Your task to perform on an android device: Add "razer blackwidow" to the cart on ebay.com Image 0: 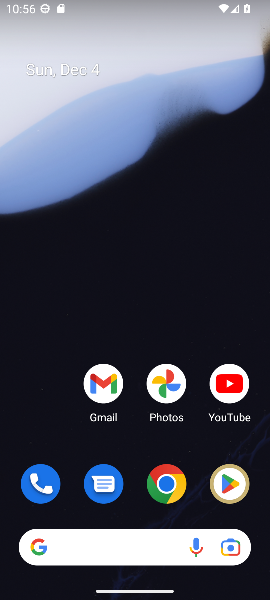
Step 0: click (171, 481)
Your task to perform on an android device: Add "razer blackwidow" to the cart on ebay.com Image 1: 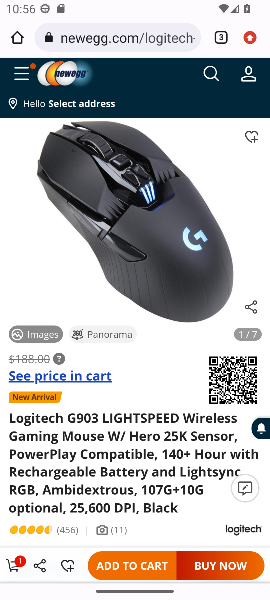
Step 1: click (86, 39)
Your task to perform on an android device: Add "razer blackwidow" to the cart on ebay.com Image 2: 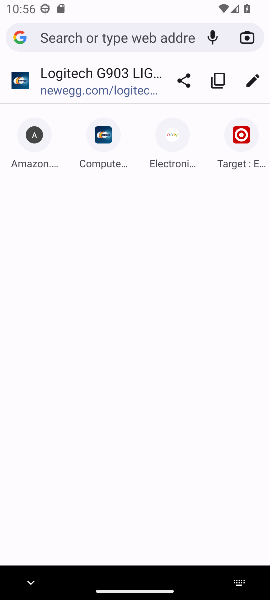
Step 2: type "ebay.com"
Your task to perform on an android device: Add "razer blackwidow" to the cart on ebay.com Image 3: 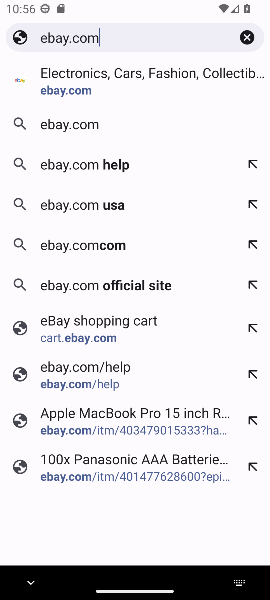
Step 3: click (60, 98)
Your task to perform on an android device: Add "razer blackwidow" to the cart on ebay.com Image 4: 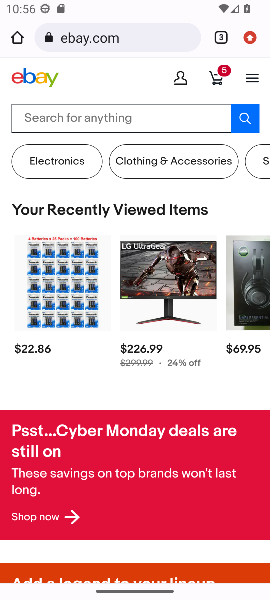
Step 4: click (104, 116)
Your task to perform on an android device: Add "razer blackwidow" to the cart on ebay.com Image 5: 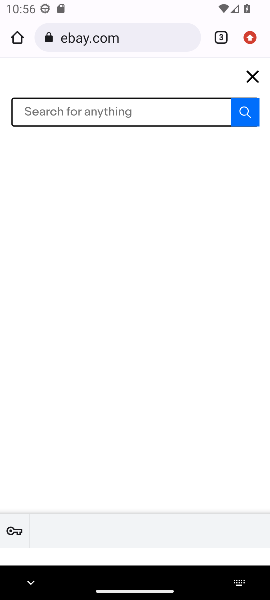
Step 5: click (118, 102)
Your task to perform on an android device: Add "razer blackwidow" to the cart on ebay.com Image 6: 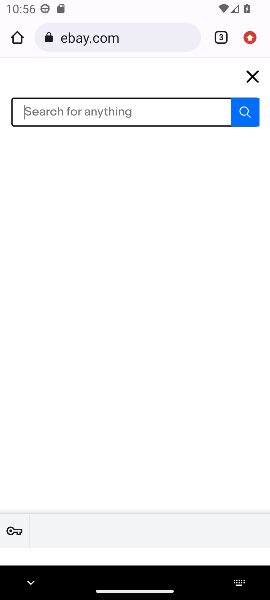
Step 6: type "razer blackwidow"
Your task to perform on an android device: Add "razer blackwidow" to the cart on ebay.com Image 7: 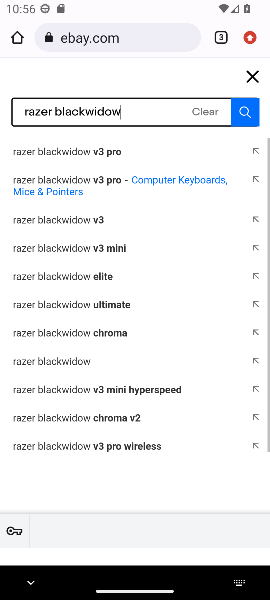
Step 7: click (69, 363)
Your task to perform on an android device: Add "razer blackwidow" to the cart on ebay.com Image 8: 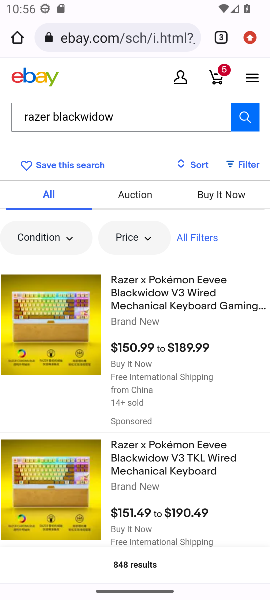
Step 8: drag from (91, 418) to (86, 272)
Your task to perform on an android device: Add "razer blackwidow" to the cart on ebay.com Image 9: 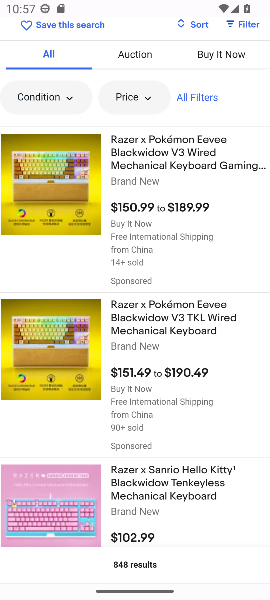
Step 9: drag from (123, 458) to (113, 211)
Your task to perform on an android device: Add "razer blackwidow" to the cart on ebay.com Image 10: 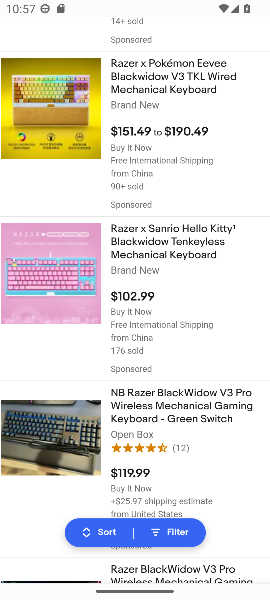
Step 10: drag from (88, 414) to (84, 218)
Your task to perform on an android device: Add "razer blackwidow" to the cart on ebay.com Image 11: 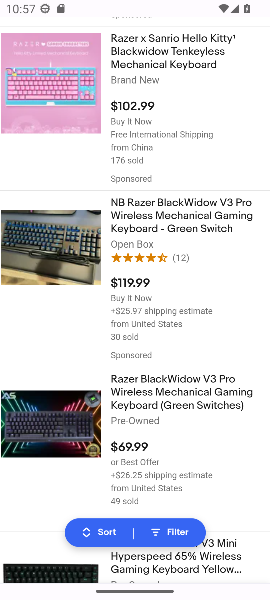
Step 11: click (166, 230)
Your task to perform on an android device: Add "razer blackwidow" to the cart on ebay.com Image 12: 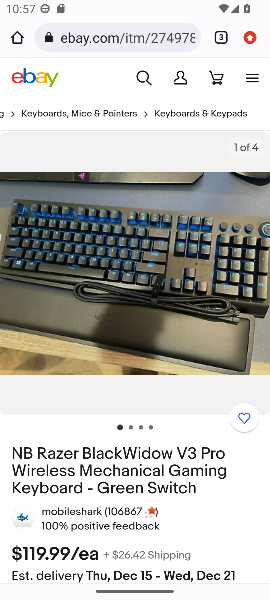
Step 12: drag from (113, 467) to (97, 190)
Your task to perform on an android device: Add "razer blackwidow" to the cart on ebay.com Image 13: 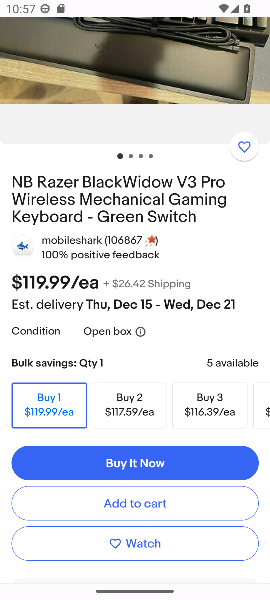
Step 13: click (126, 505)
Your task to perform on an android device: Add "razer blackwidow" to the cart on ebay.com Image 14: 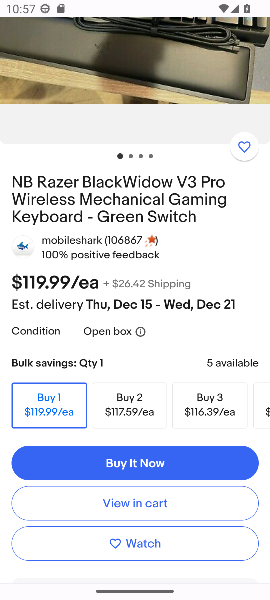
Step 14: task complete